Your task to perform on an android device: Show me the alarms in the clock app Image 0: 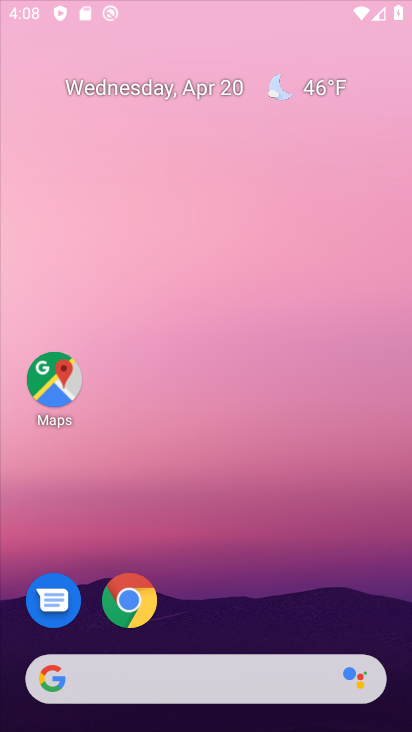
Step 0: click (236, 69)
Your task to perform on an android device: Show me the alarms in the clock app Image 1: 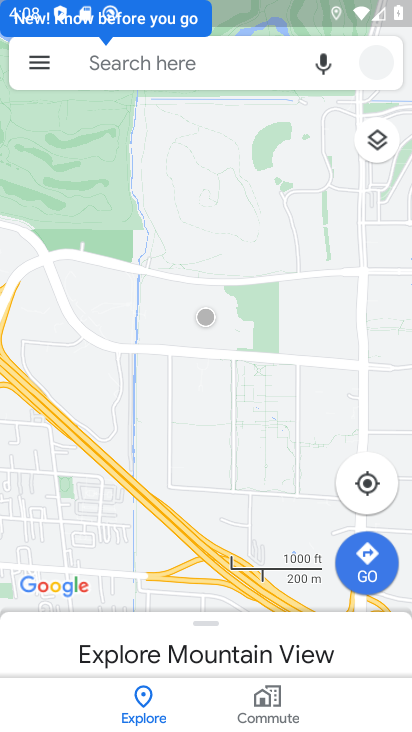
Step 1: press home button
Your task to perform on an android device: Show me the alarms in the clock app Image 2: 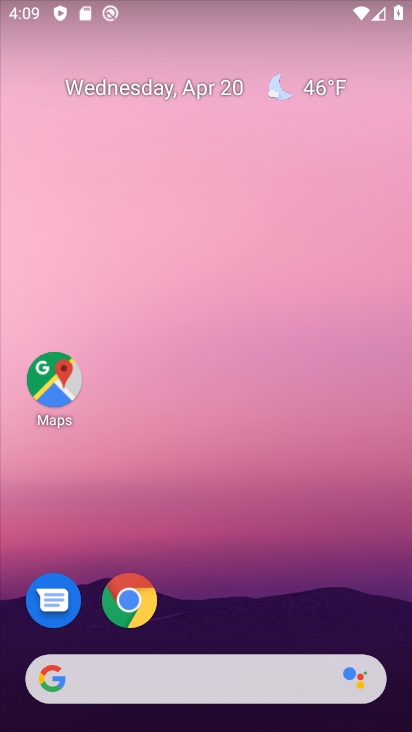
Step 2: drag from (246, 570) to (226, 79)
Your task to perform on an android device: Show me the alarms in the clock app Image 3: 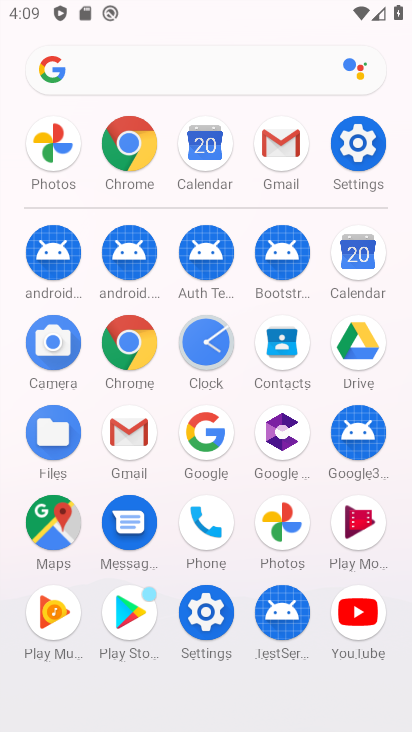
Step 3: click (210, 338)
Your task to perform on an android device: Show me the alarms in the clock app Image 4: 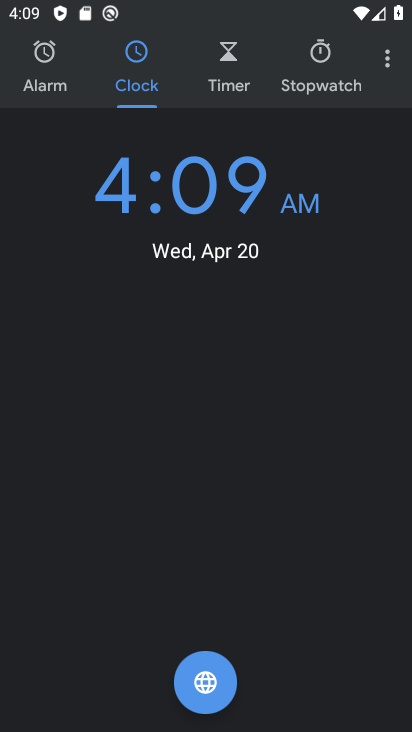
Step 4: click (45, 59)
Your task to perform on an android device: Show me the alarms in the clock app Image 5: 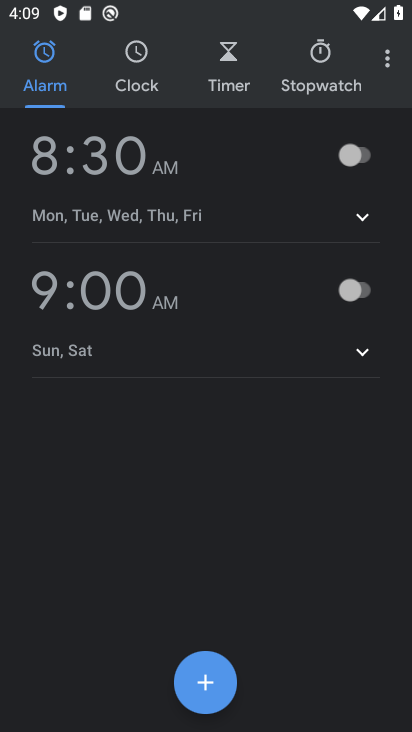
Step 5: task complete